Your task to perform on an android device: turn off smart reply in the gmail app Image 0: 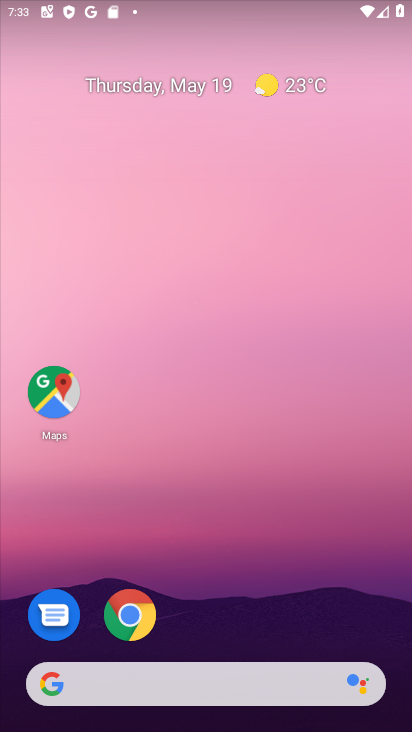
Step 0: drag from (319, 653) to (302, 31)
Your task to perform on an android device: turn off smart reply in the gmail app Image 1: 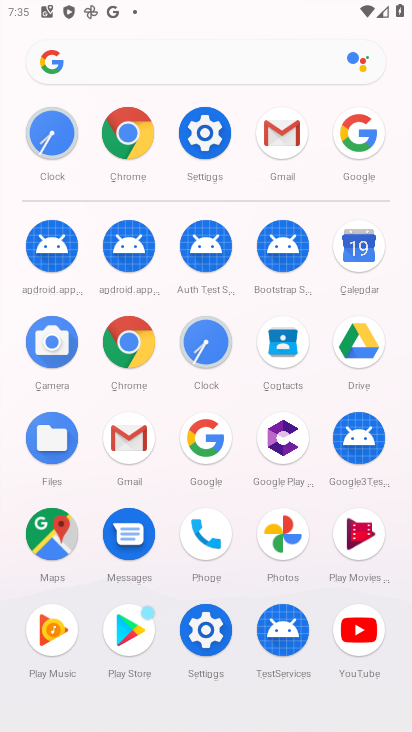
Step 1: click (116, 438)
Your task to perform on an android device: turn off smart reply in the gmail app Image 2: 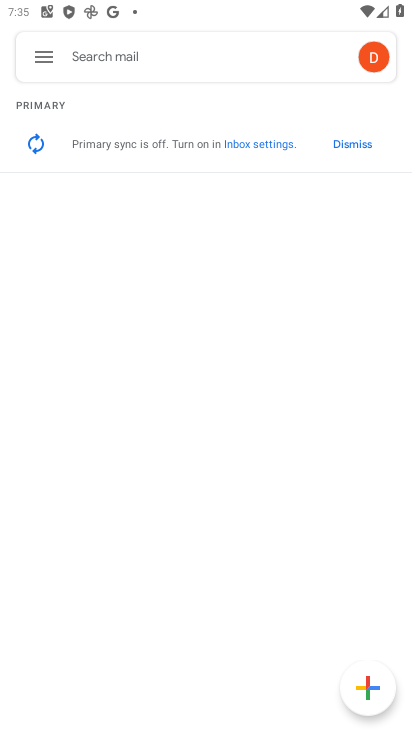
Step 2: click (35, 54)
Your task to perform on an android device: turn off smart reply in the gmail app Image 3: 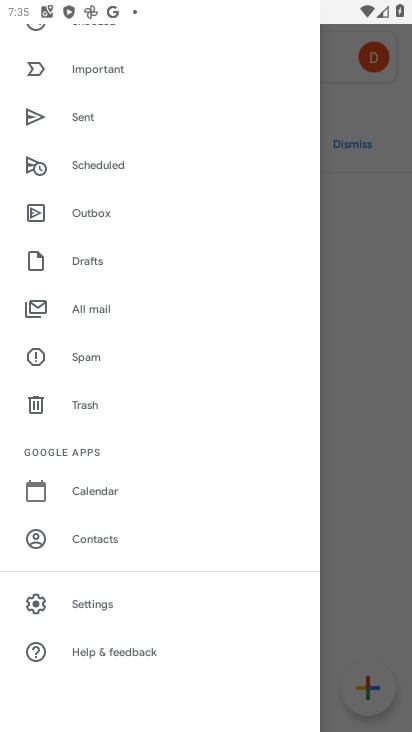
Step 3: click (117, 597)
Your task to perform on an android device: turn off smart reply in the gmail app Image 4: 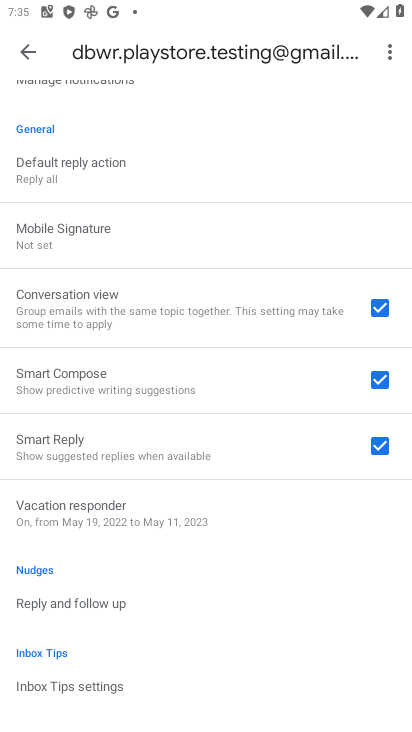
Step 4: click (107, 459)
Your task to perform on an android device: turn off smart reply in the gmail app Image 5: 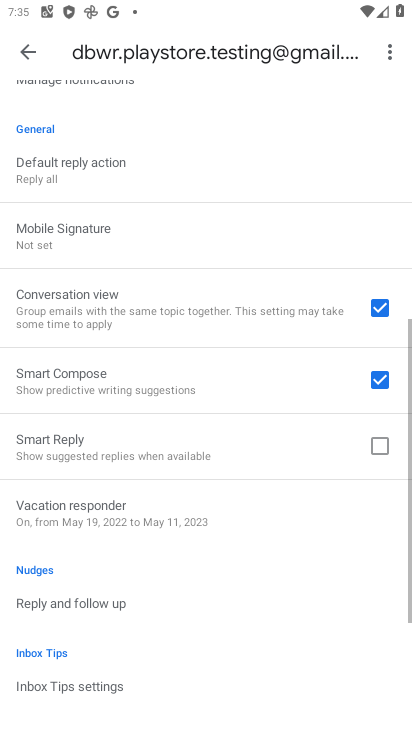
Step 5: task complete